Your task to perform on an android device: Show me recent news Image 0: 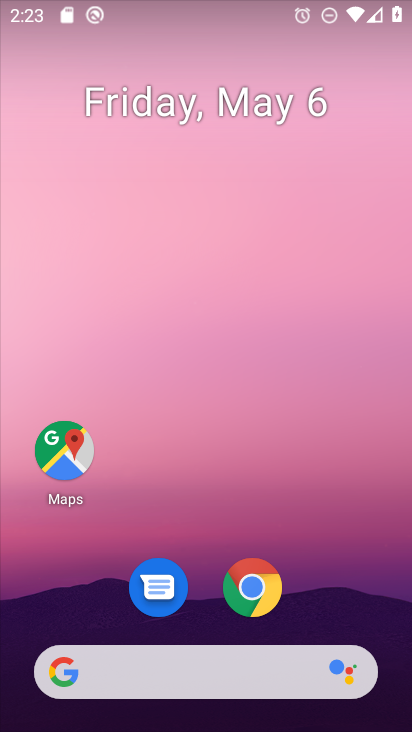
Step 0: click (133, 680)
Your task to perform on an android device: Show me recent news Image 1: 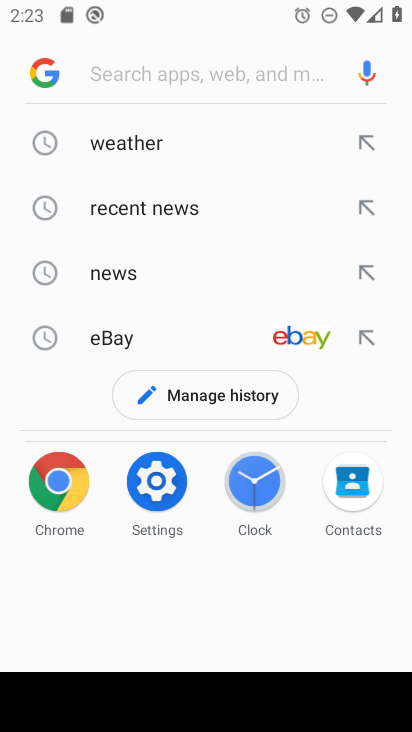
Step 1: click (115, 269)
Your task to perform on an android device: Show me recent news Image 2: 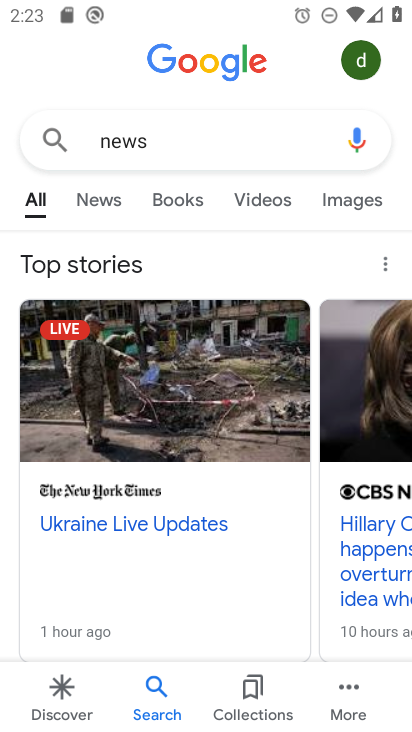
Step 2: click (98, 192)
Your task to perform on an android device: Show me recent news Image 3: 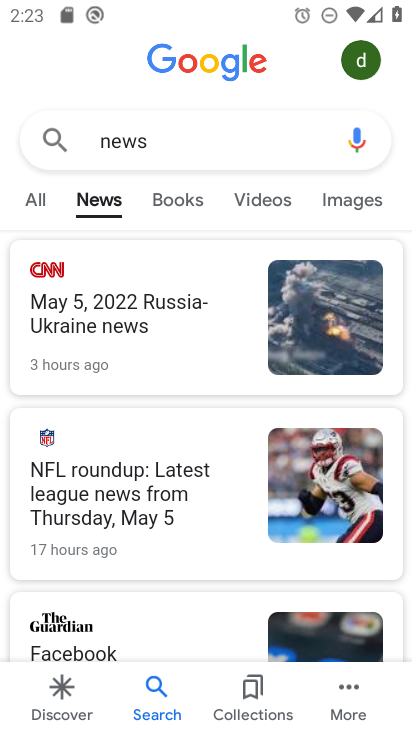
Step 3: task complete